Your task to perform on an android device: Open Amazon Image 0: 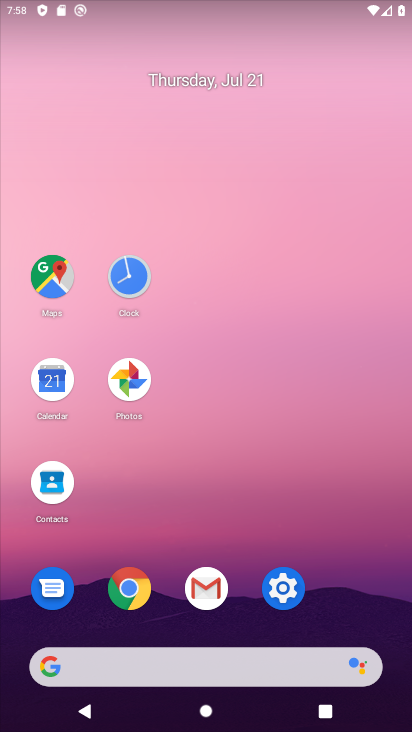
Step 0: click (135, 593)
Your task to perform on an android device: Open Amazon Image 1: 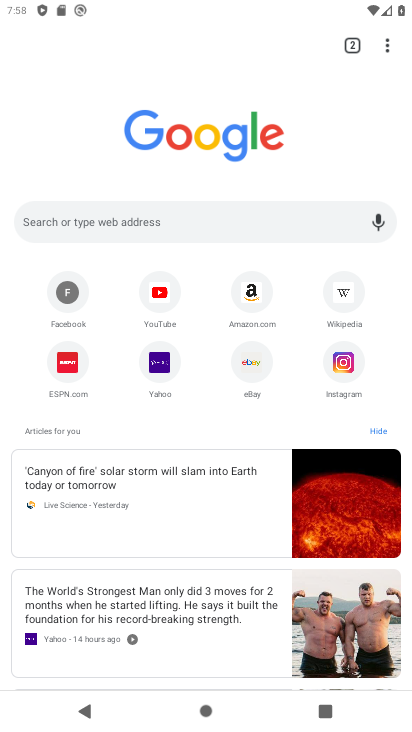
Step 1: click (258, 296)
Your task to perform on an android device: Open Amazon Image 2: 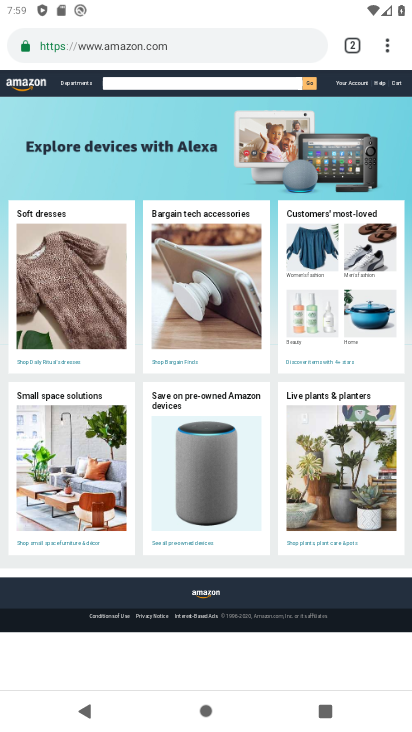
Step 2: task complete